Your task to perform on an android device: check out phone information Image 0: 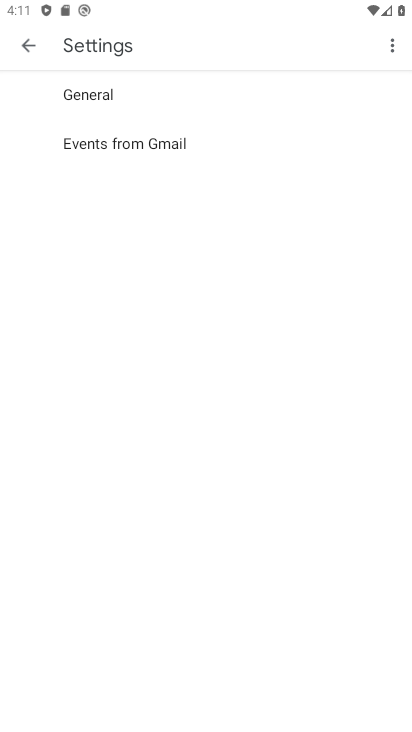
Step 0: press home button
Your task to perform on an android device: check out phone information Image 1: 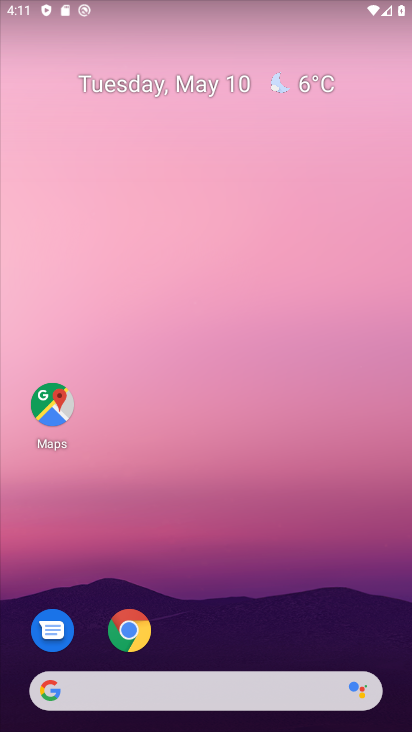
Step 1: drag from (218, 614) to (107, 74)
Your task to perform on an android device: check out phone information Image 2: 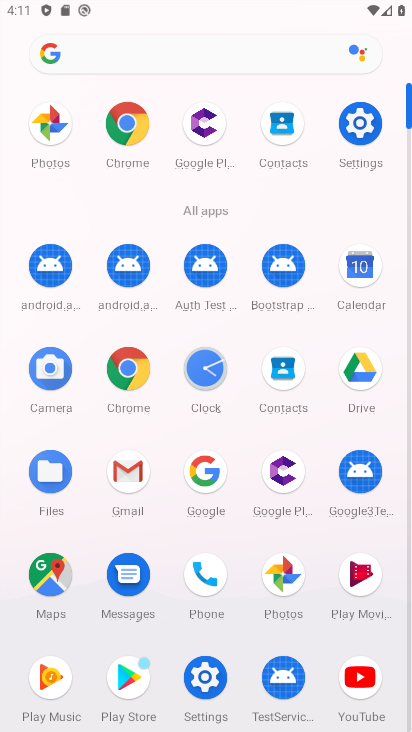
Step 2: click (205, 573)
Your task to perform on an android device: check out phone information Image 3: 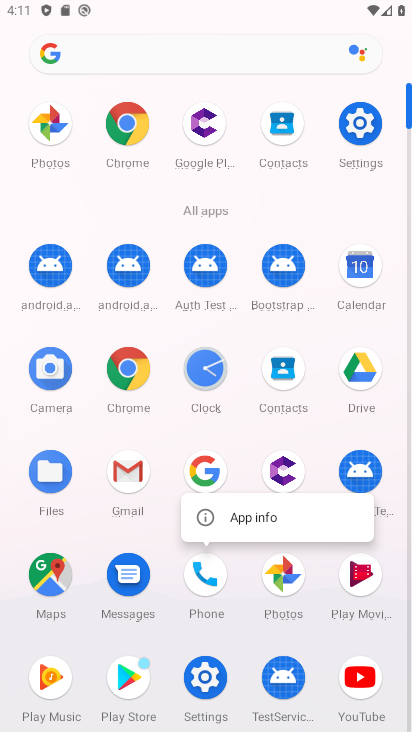
Step 3: click (263, 506)
Your task to perform on an android device: check out phone information Image 4: 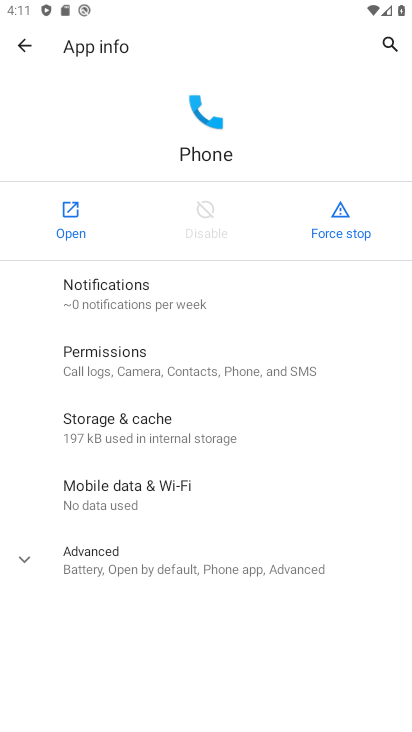
Step 4: task complete